Your task to perform on an android device: install app "Facebook" Image 0: 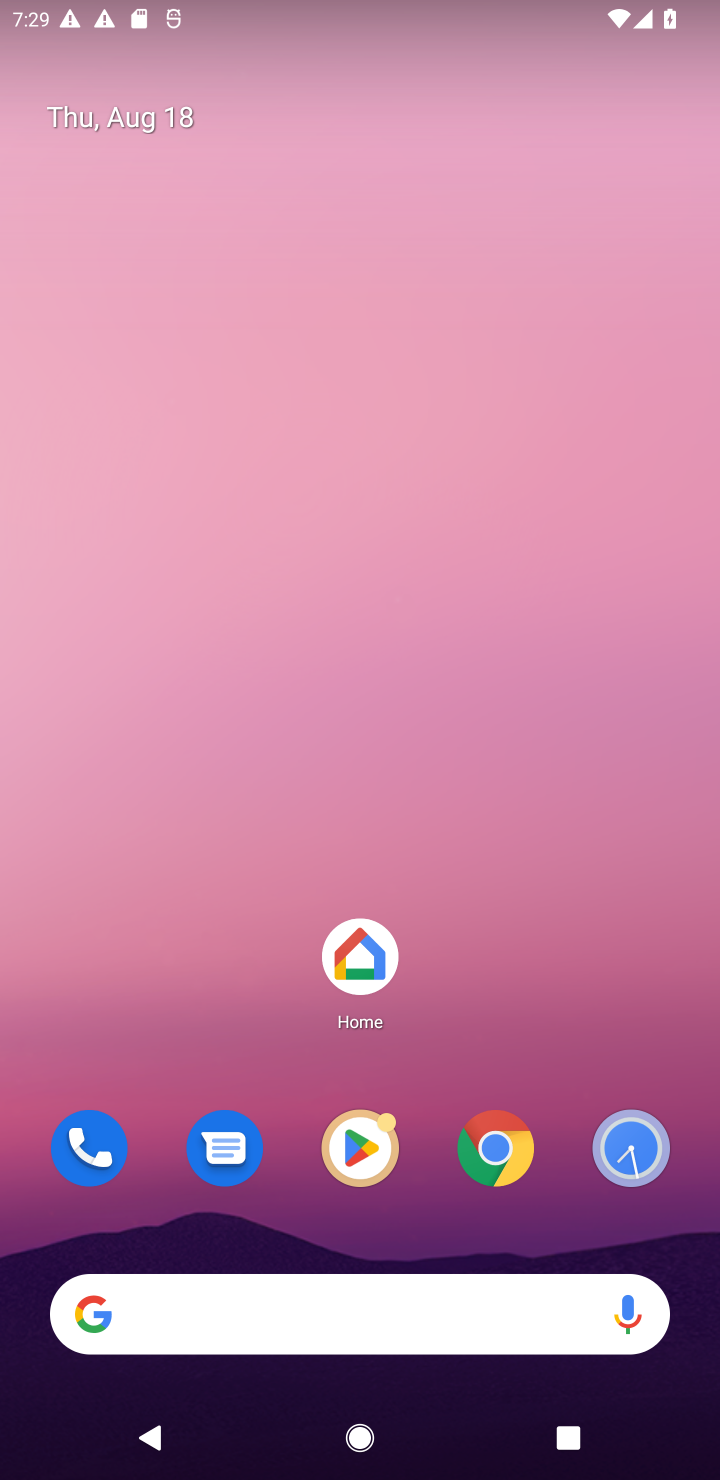
Step 0: drag from (204, 1184) to (335, 9)
Your task to perform on an android device: install app "Facebook" Image 1: 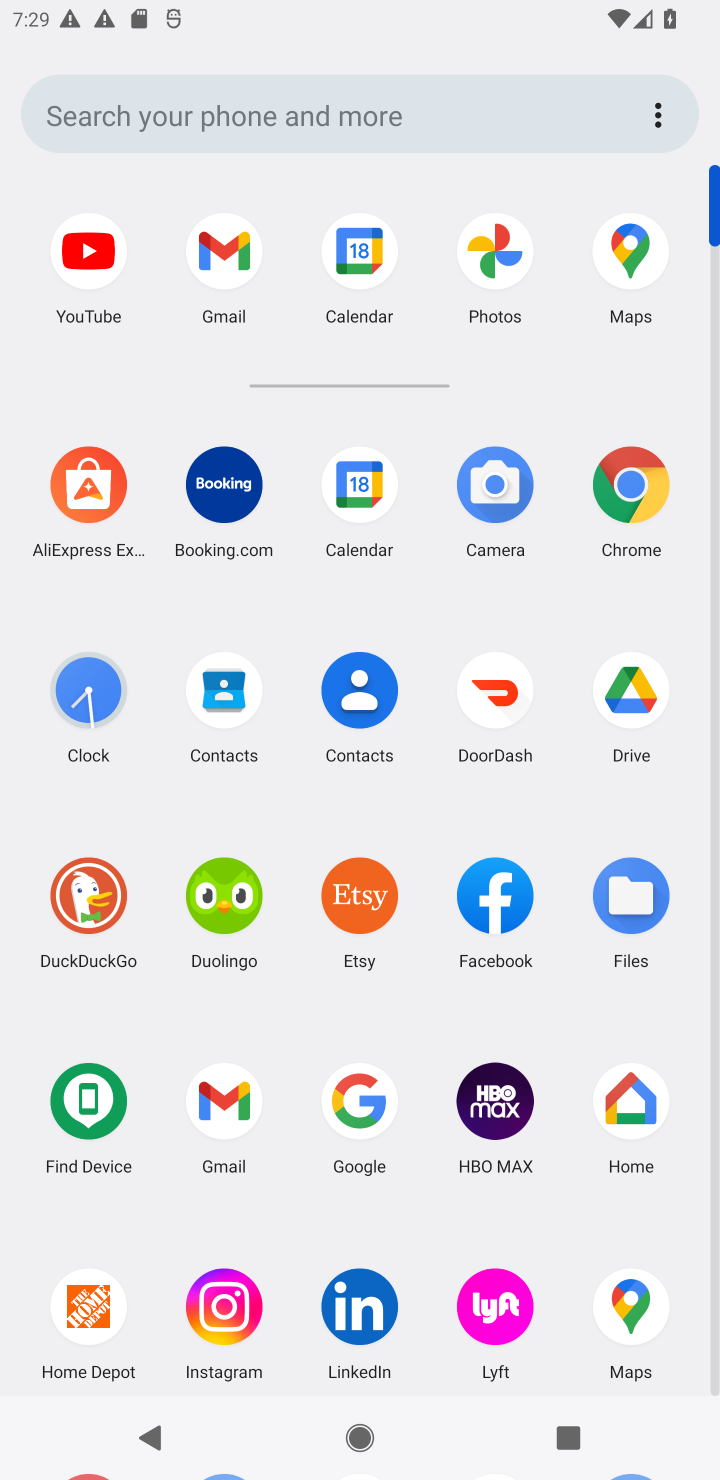
Step 1: drag from (482, 1280) to (479, 383)
Your task to perform on an android device: install app "Facebook" Image 2: 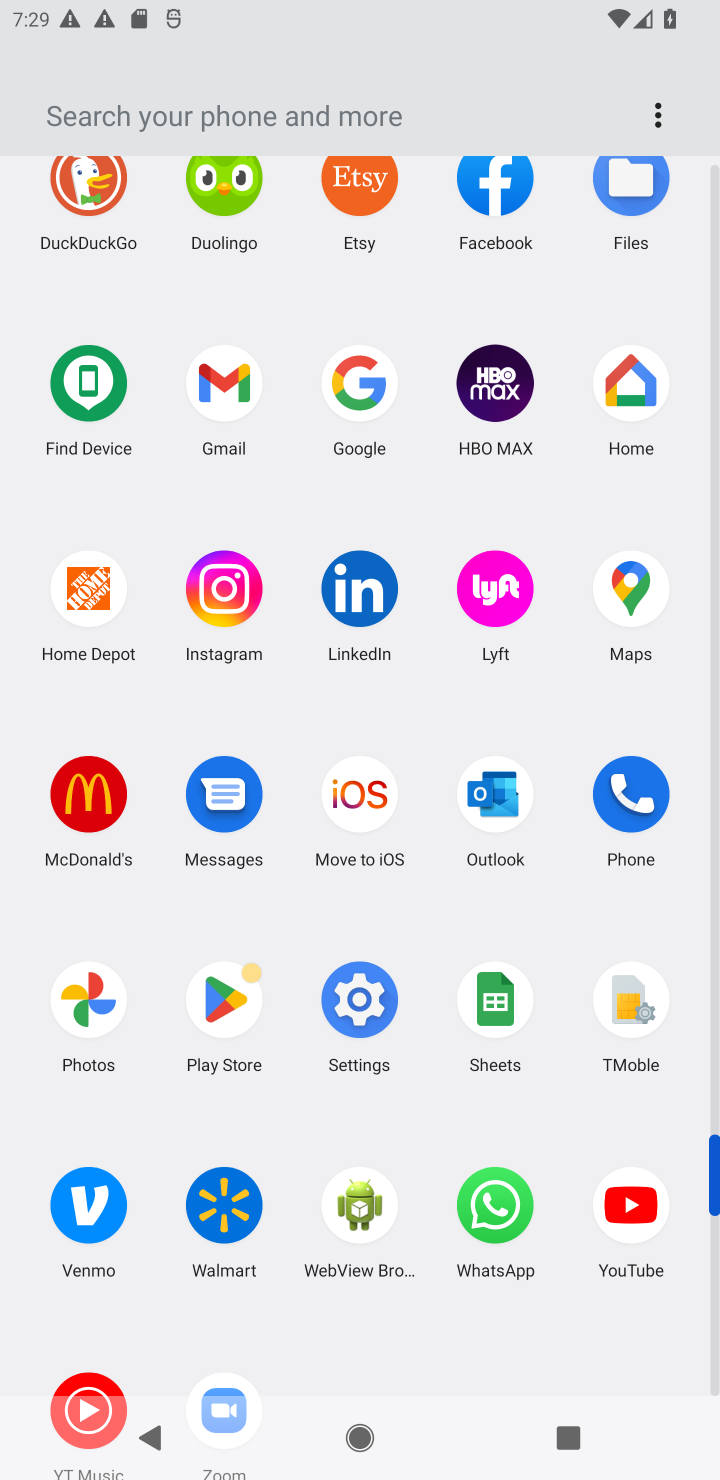
Step 2: click (506, 198)
Your task to perform on an android device: install app "Facebook" Image 3: 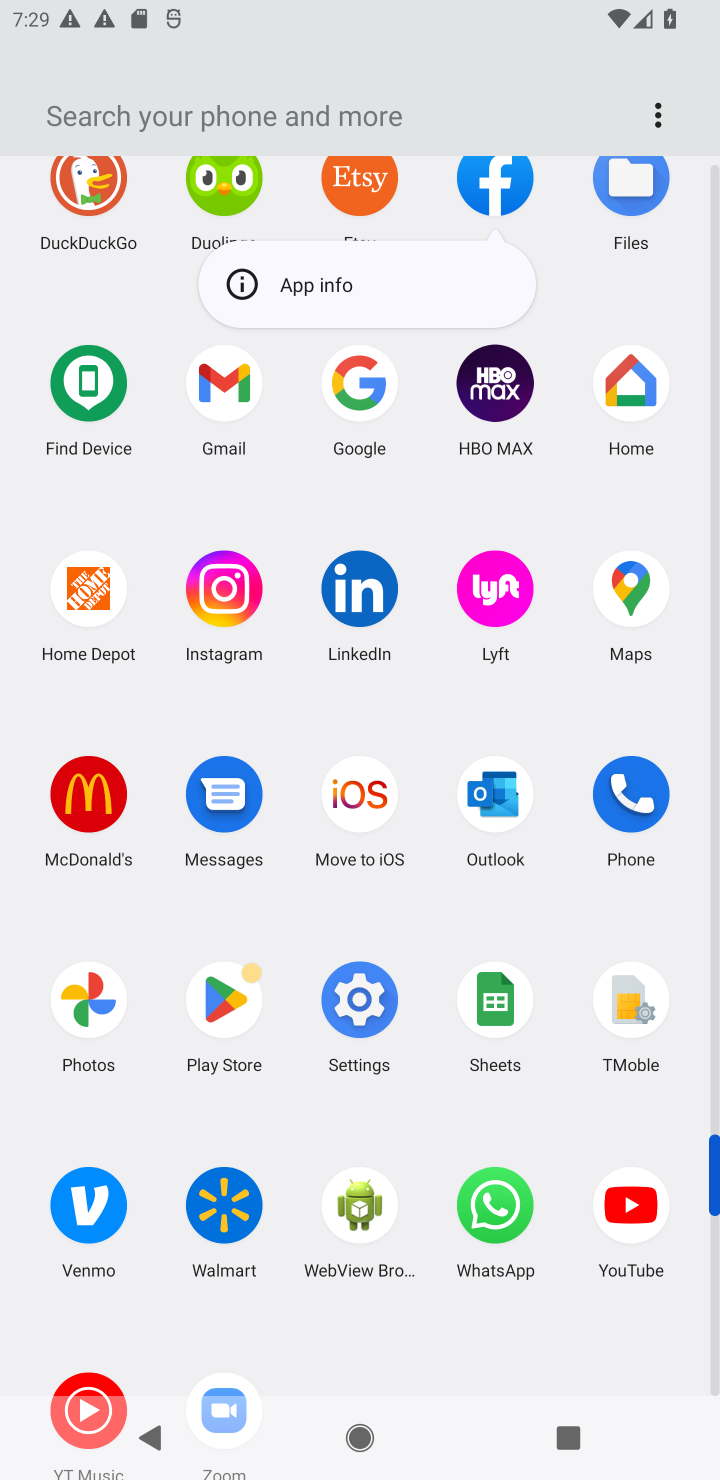
Step 3: click (506, 194)
Your task to perform on an android device: install app "Facebook" Image 4: 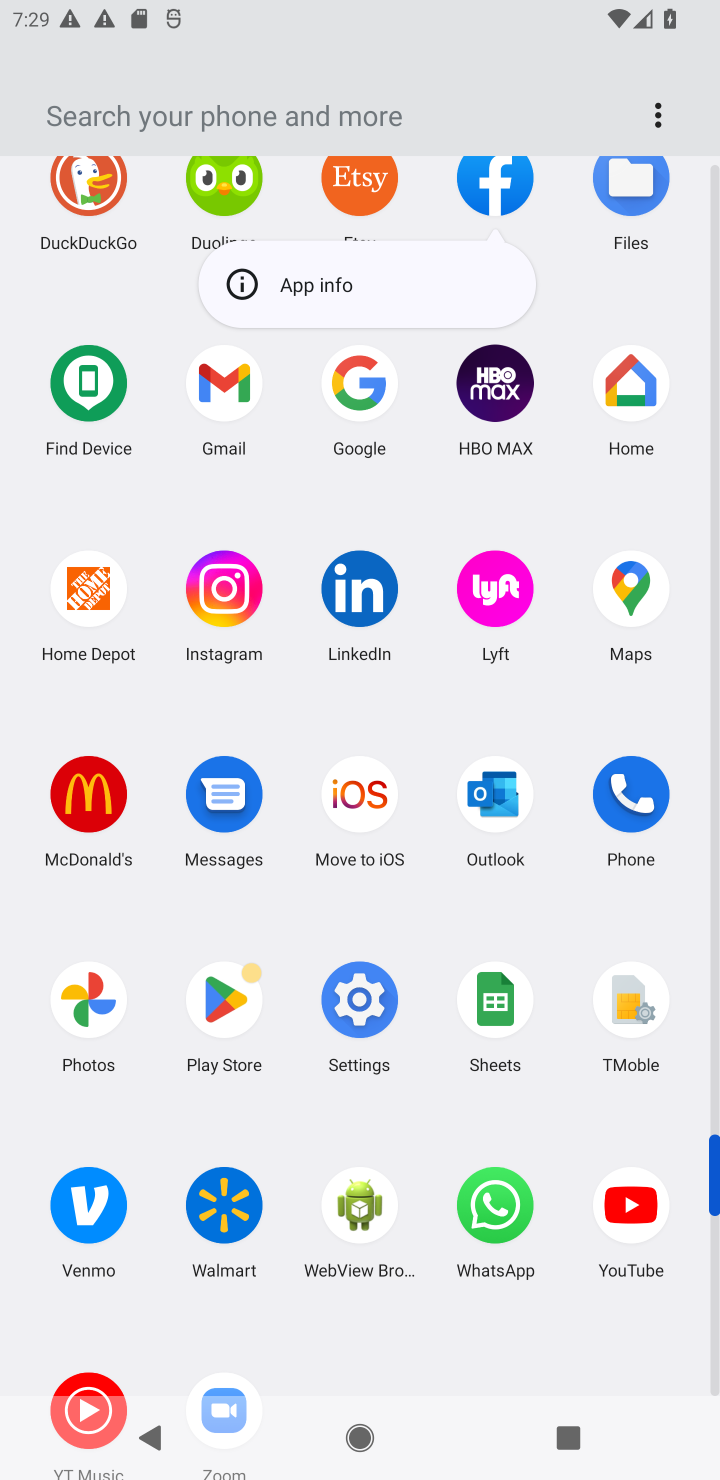
Step 4: click (506, 194)
Your task to perform on an android device: install app "Facebook" Image 5: 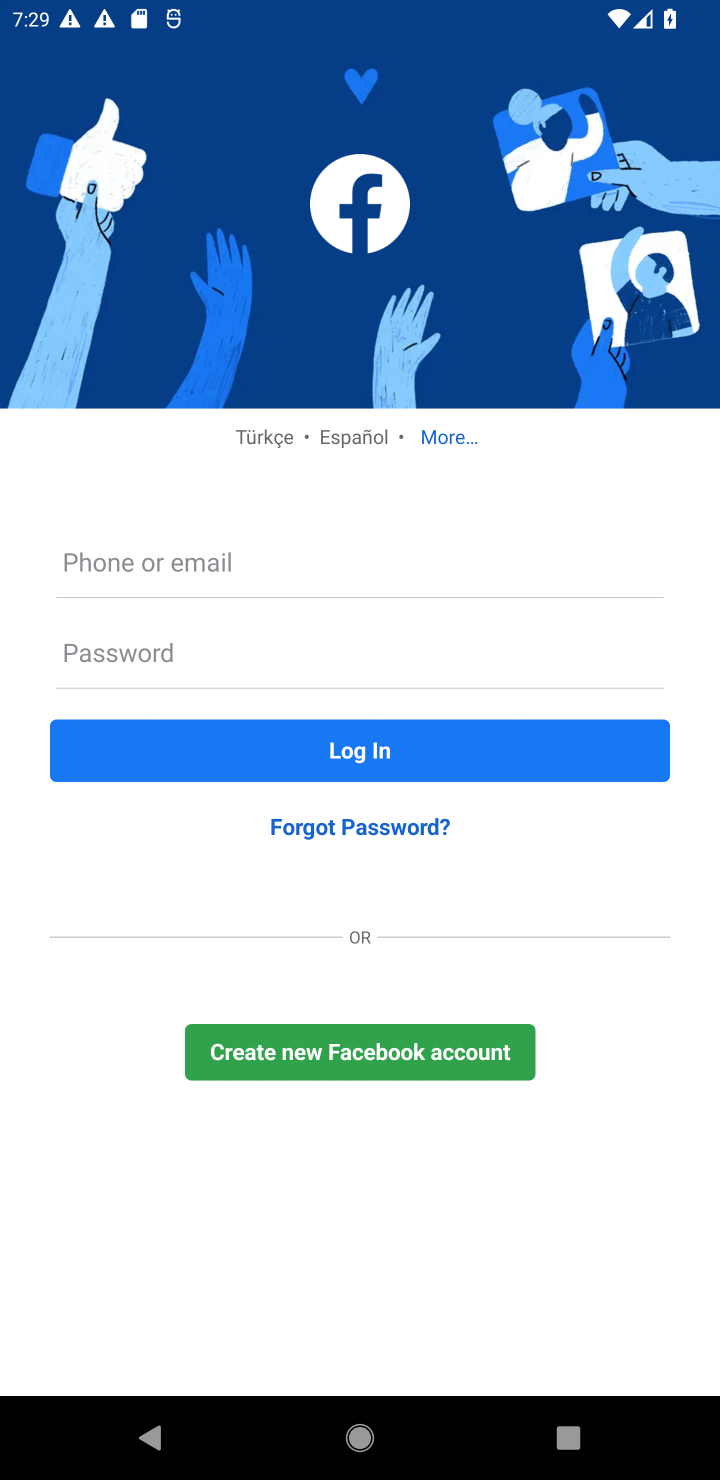
Step 5: task complete